Your task to perform on an android device: turn pop-ups off in chrome Image 0: 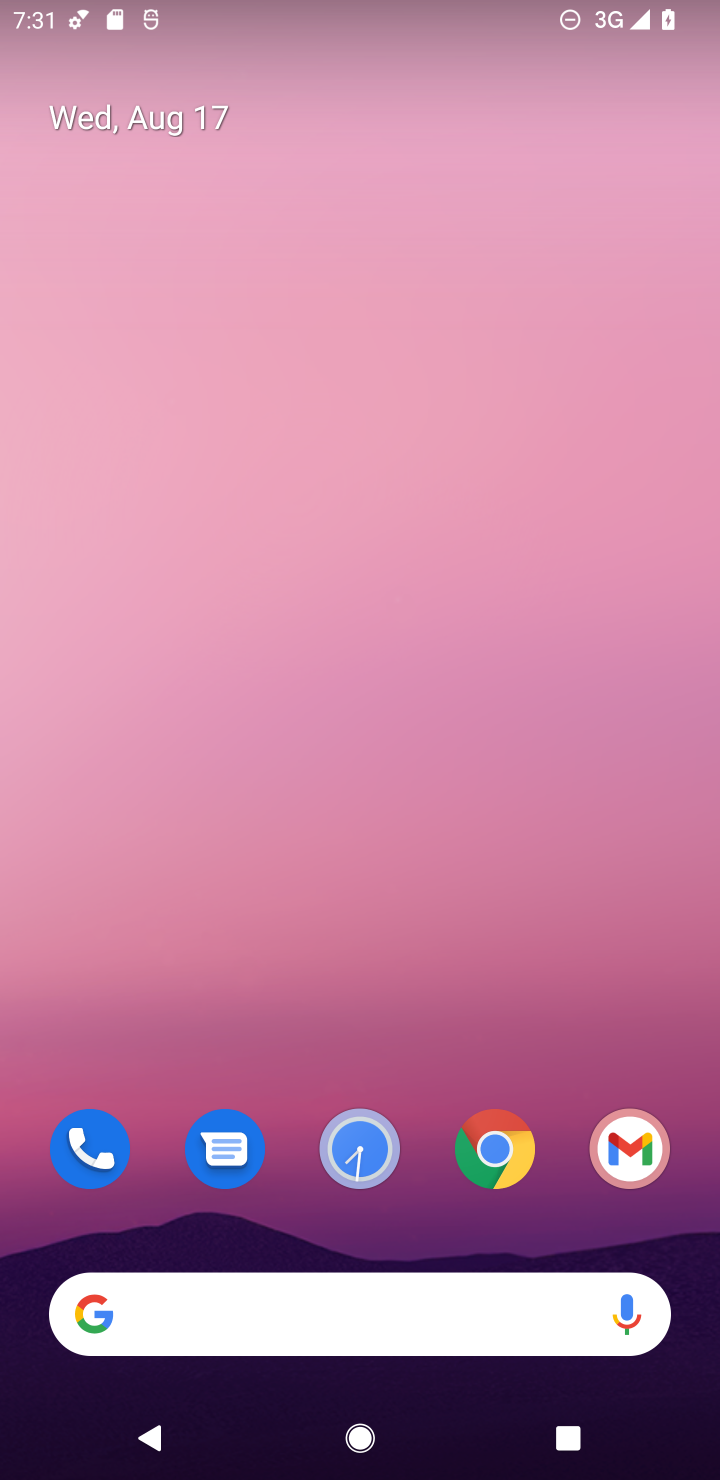
Step 0: click (484, 1149)
Your task to perform on an android device: turn pop-ups off in chrome Image 1: 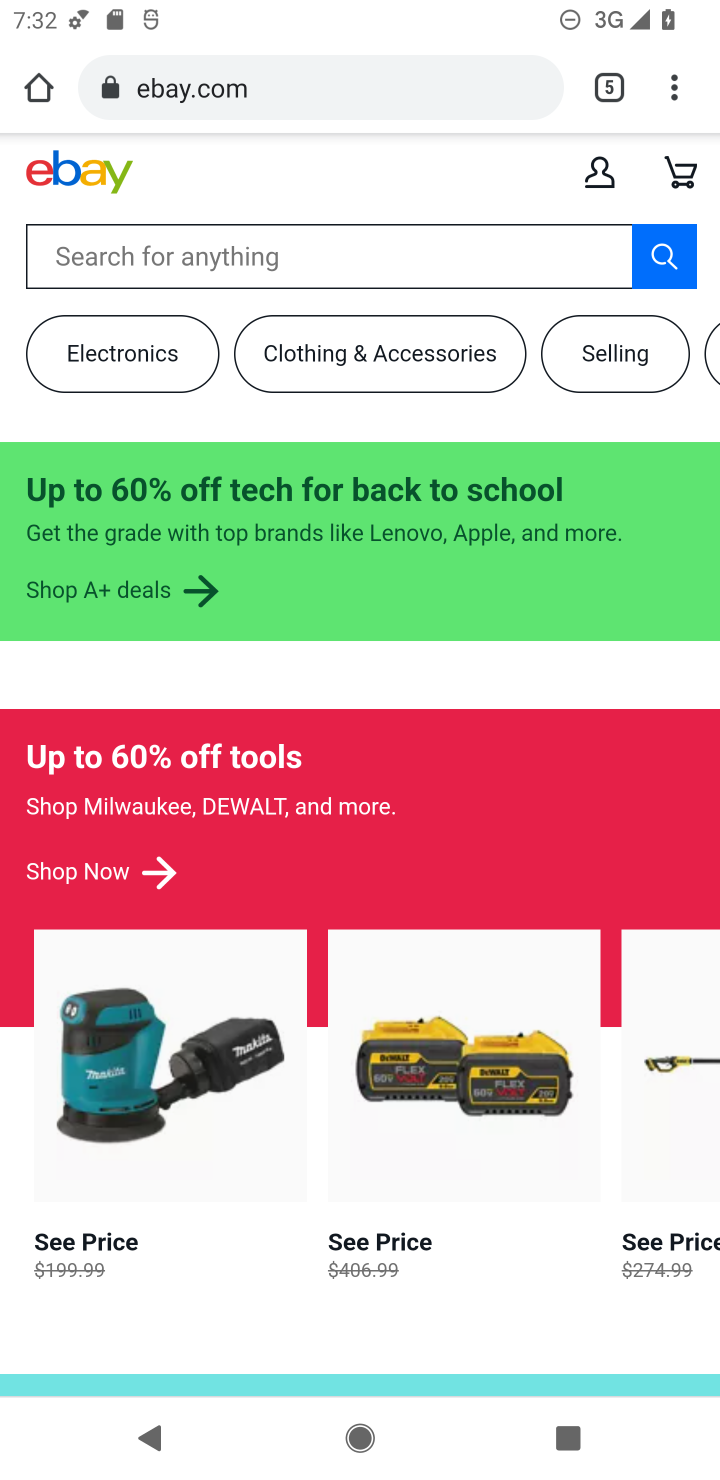
Step 1: click (681, 84)
Your task to perform on an android device: turn pop-ups off in chrome Image 2: 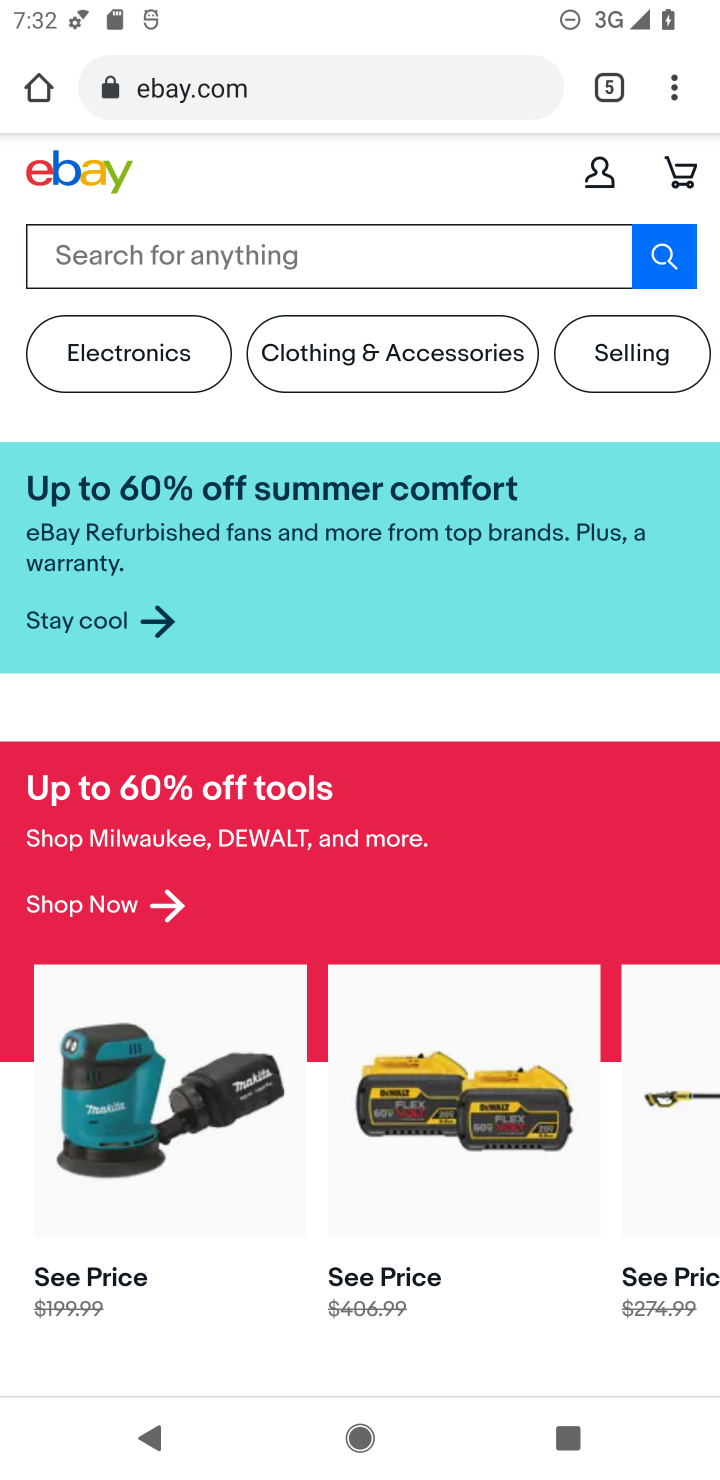
Step 2: click (670, 84)
Your task to perform on an android device: turn pop-ups off in chrome Image 3: 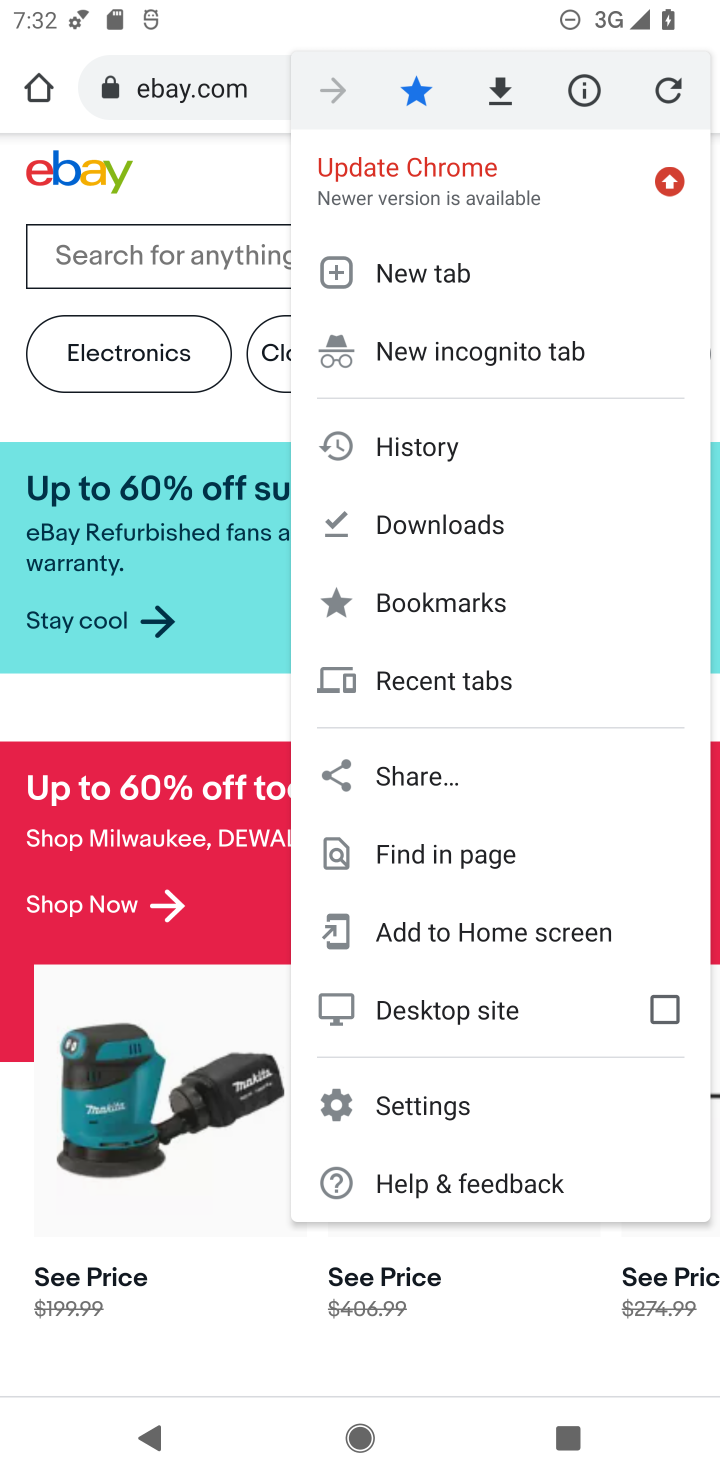
Step 3: click (428, 1101)
Your task to perform on an android device: turn pop-ups off in chrome Image 4: 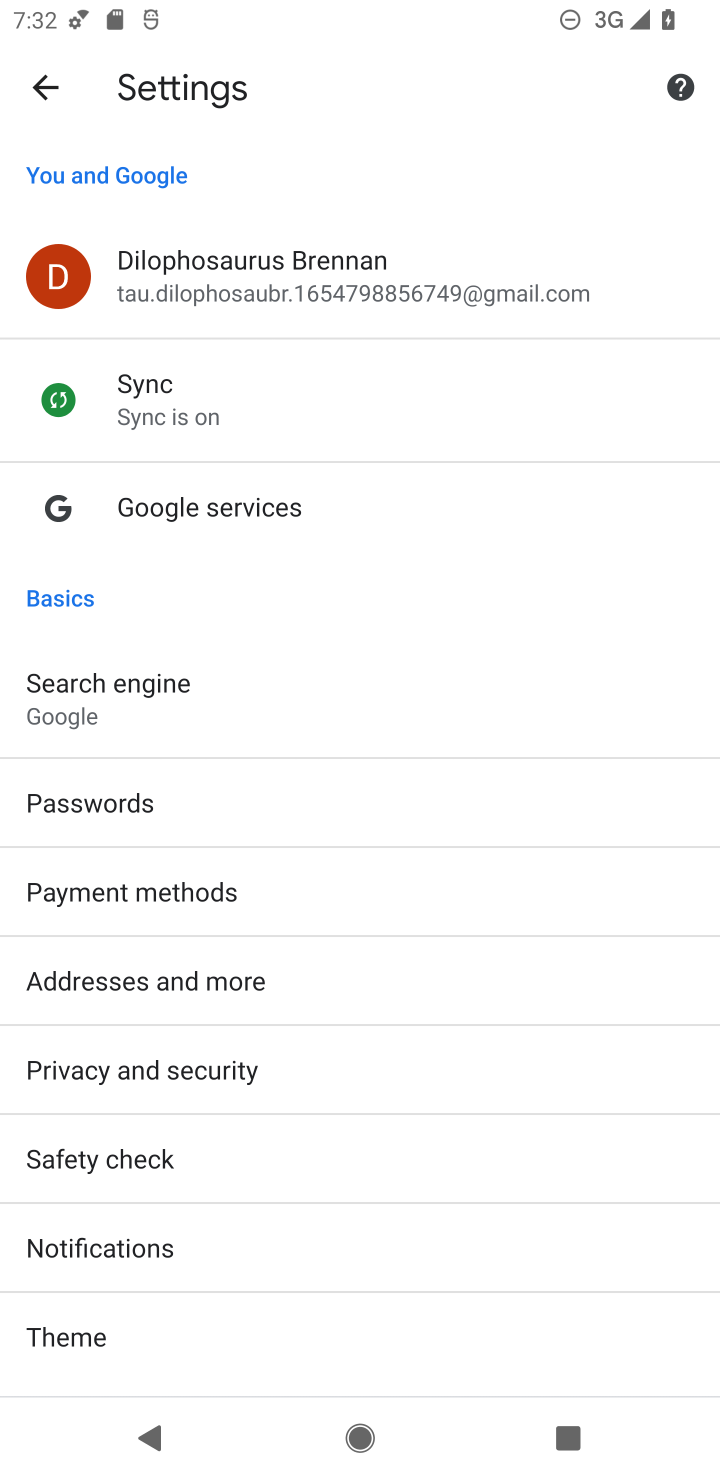
Step 4: drag from (398, 1249) to (358, 628)
Your task to perform on an android device: turn pop-ups off in chrome Image 5: 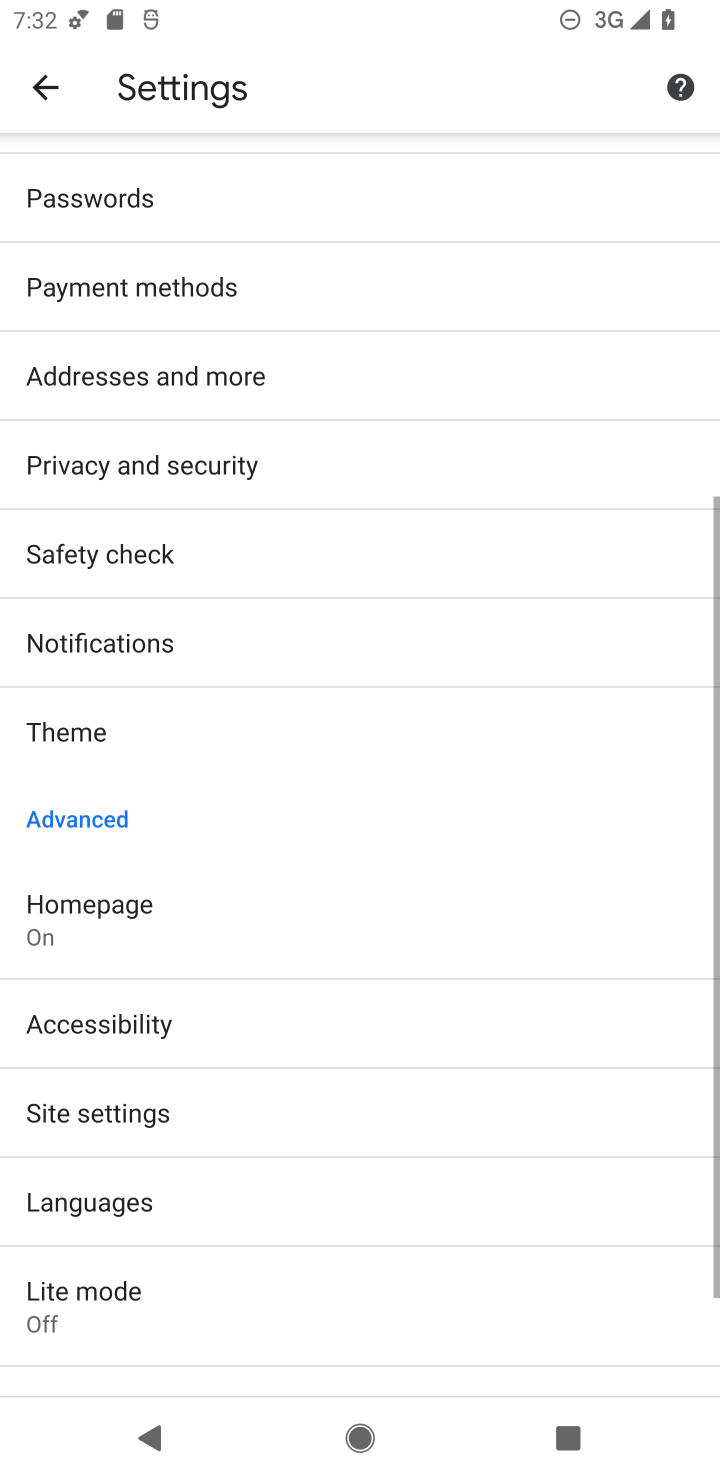
Step 5: drag from (348, 1125) to (339, 548)
Your task to perform on an android device: turn pop-ups off in chrome Image 6: 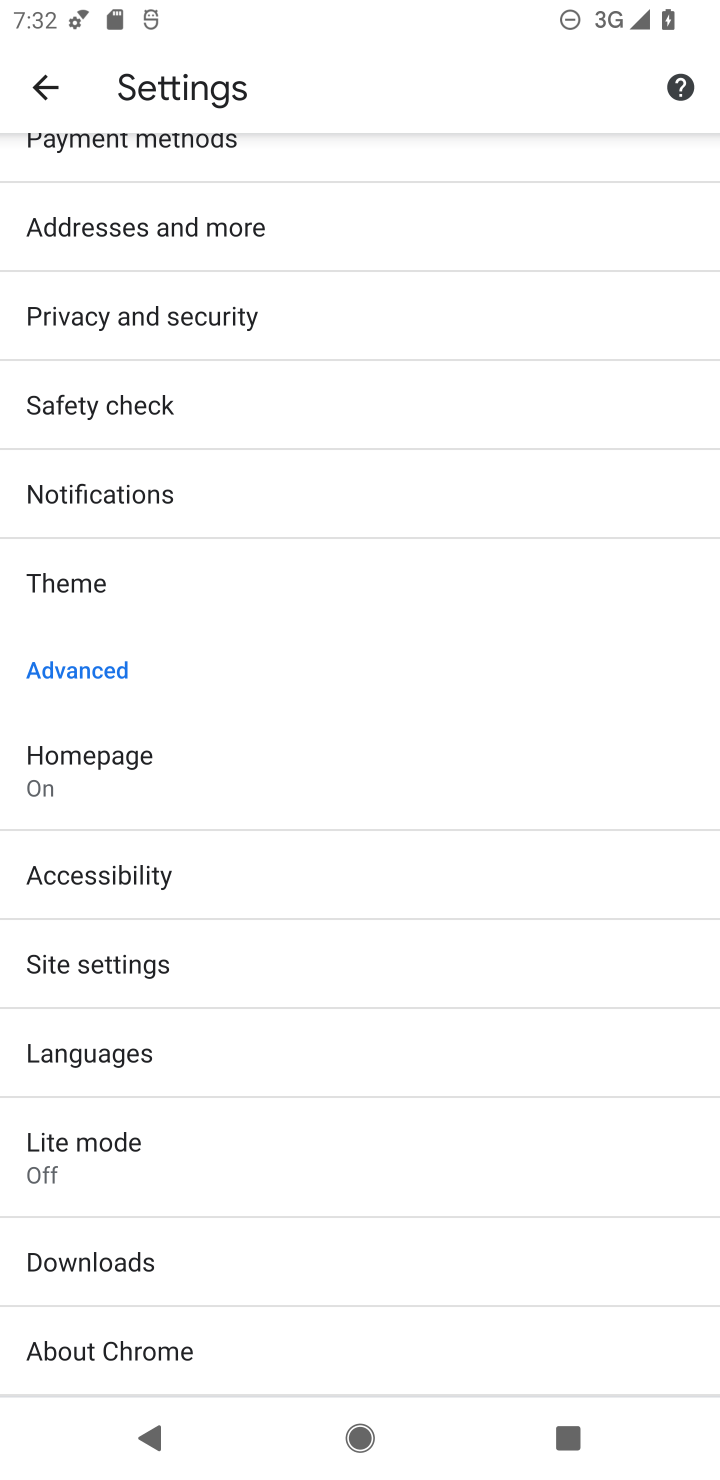
Step 6: click (118, 963)
Your task to perform on an android device: turn pop-ups off in chrome Image 7: 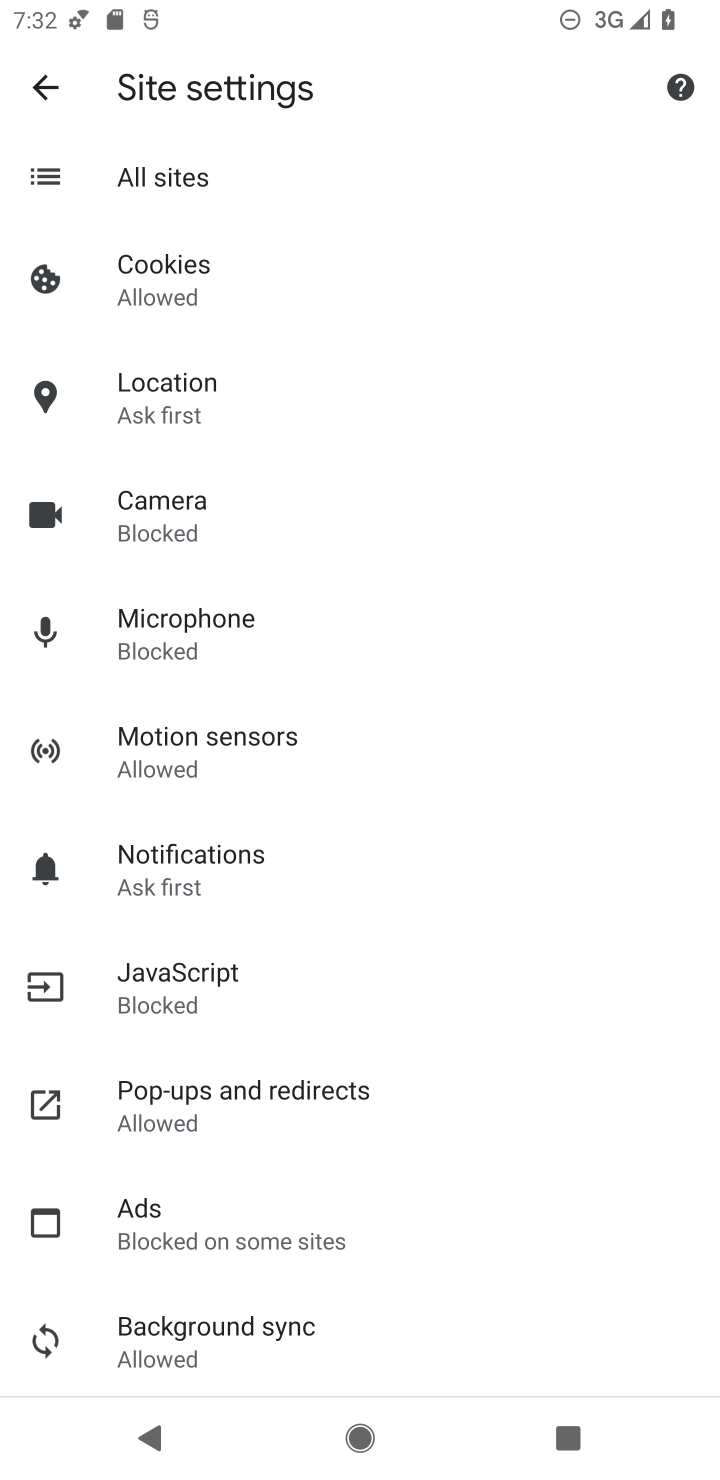
Step 7: click (210, 1088)
Your task to perform on an android device: turn pop-ups off in chrome Image 8: 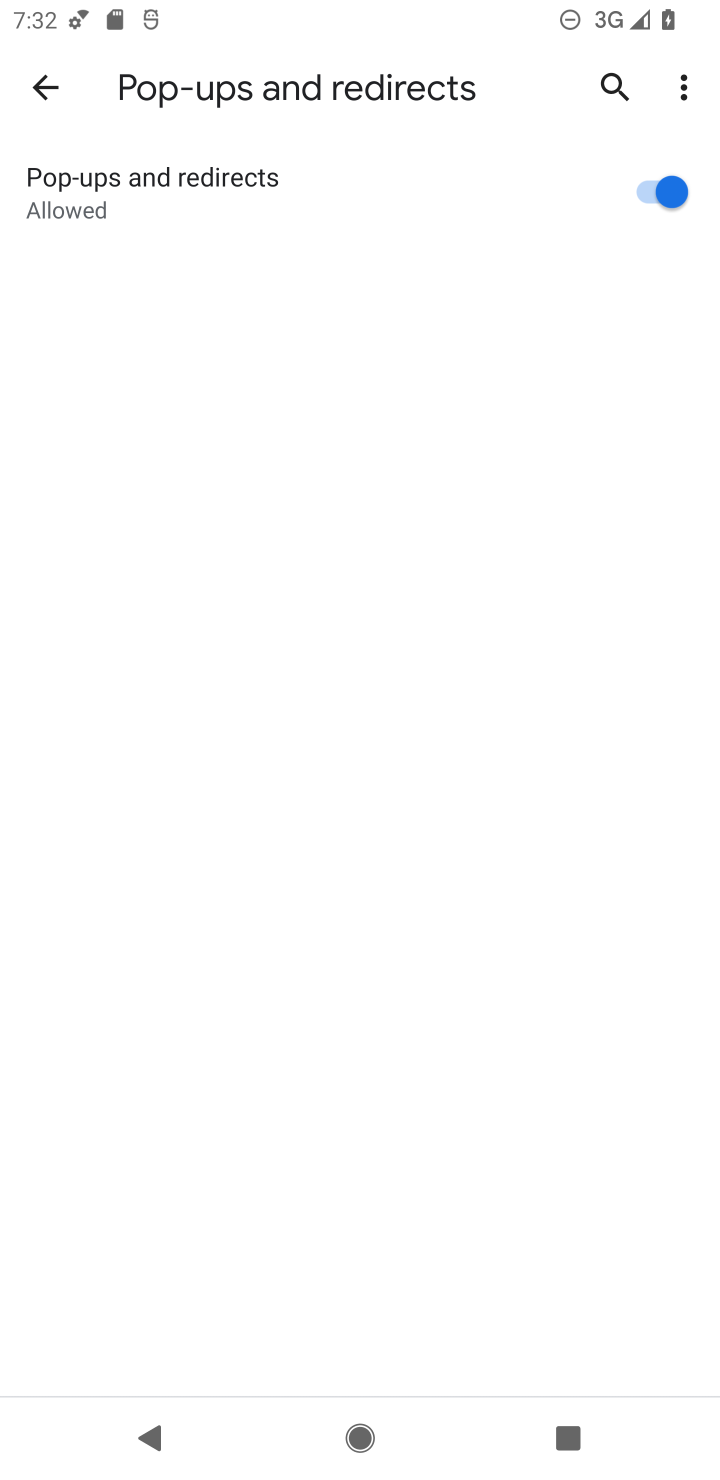
Step 8: click (668, 189)
Your task to perform on an android device: turn pop-ups off in chrome Image 9: 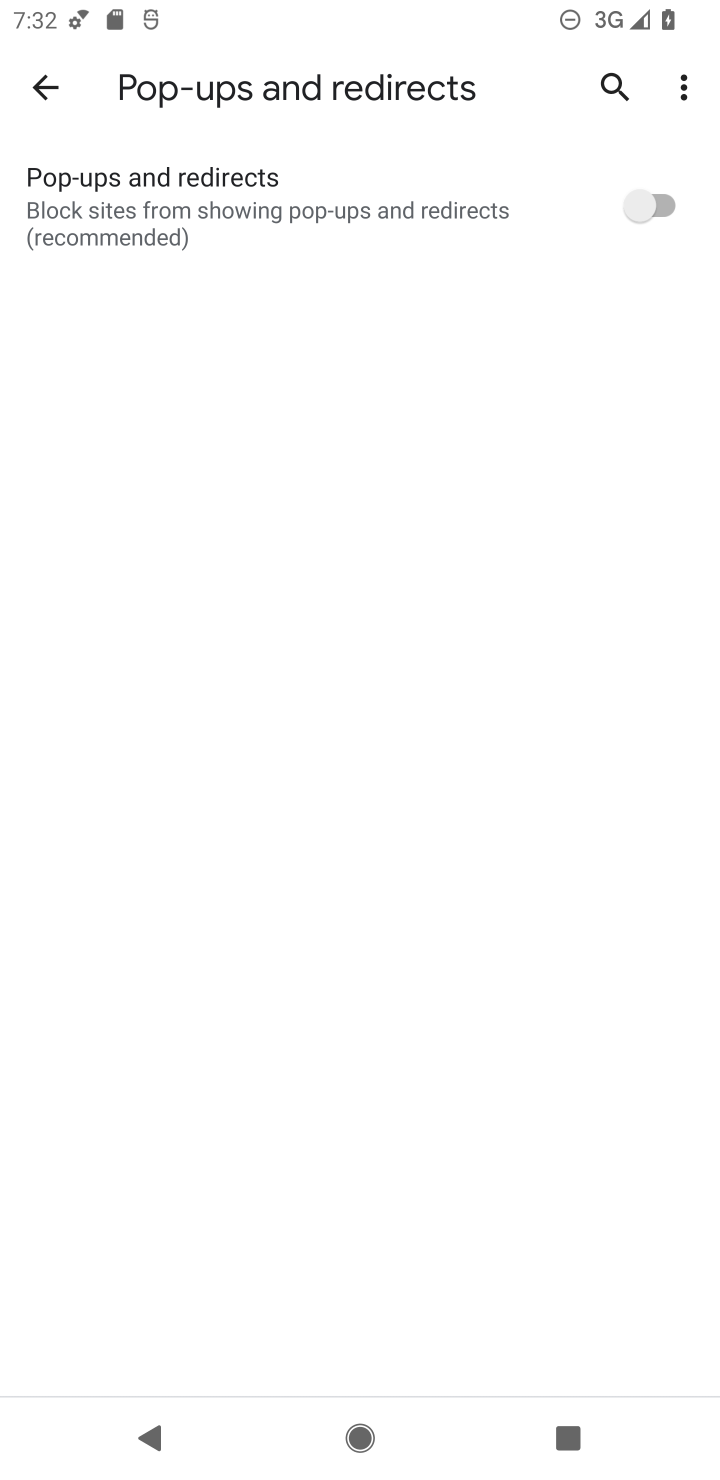
Step 9: task complete